Your task to perform on an android device: Go to sound settings Image 0: 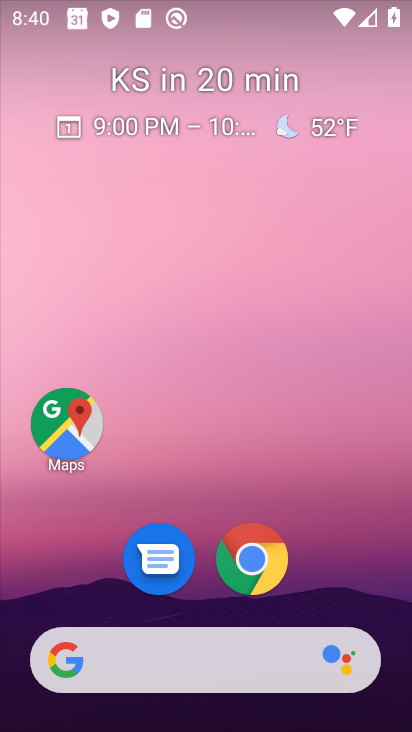
Step 0: drag from (299, 516) to (277, 46)
Your task to perform on an android device: Go to sound settings Image 1: 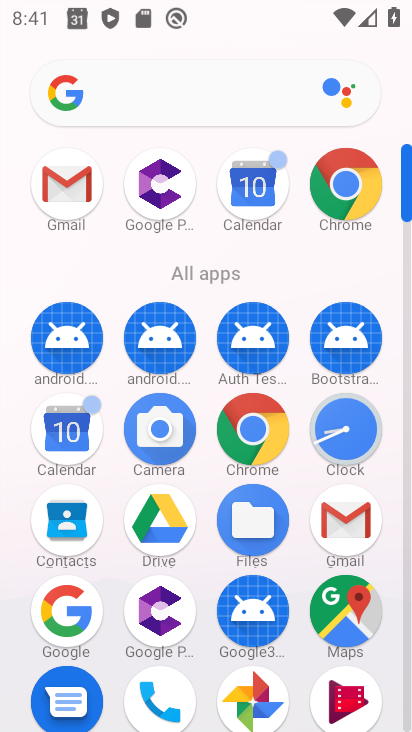
Step 1: drag from (17, 499) to (12, 187)
Your task to perform on an android device: Go to sound settings Image 2: 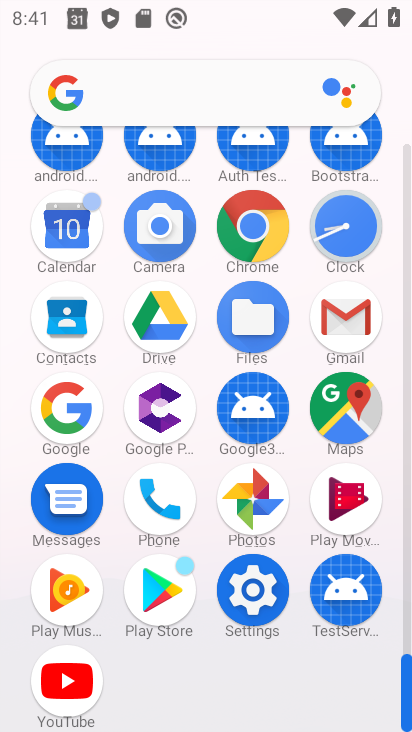
Step 2: click (252, 582)
Your task to perform on an android device: Go to sound settings Image 3: 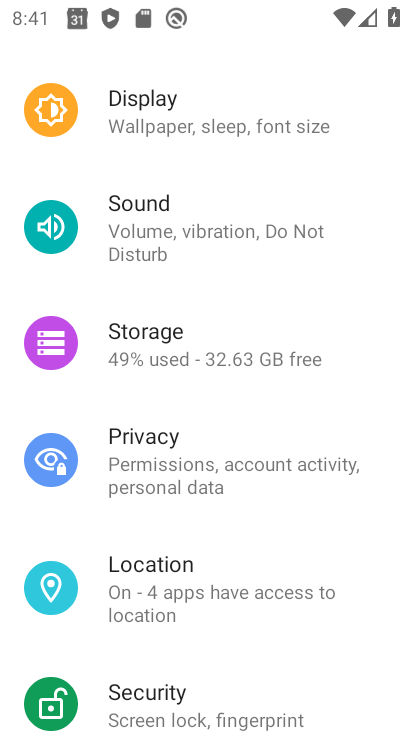
Step 3: drag from (260, 512) to (282, 112)
Your task to perform on an android device: Go to sound settings Image 4: 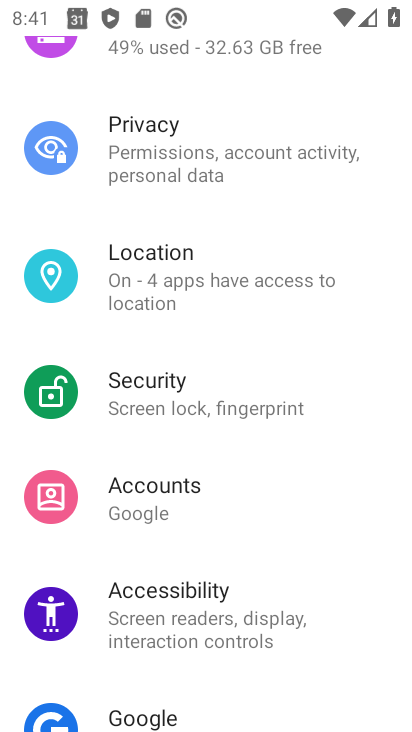
Step 4: drag from (242, 535) to (242, 103)
Your task to perform on an android device: Go to sound settings Image 5: 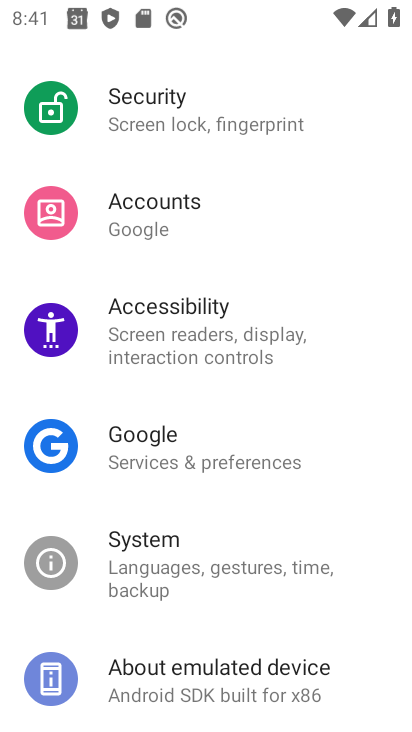
Step 5: drag from (240, 109) to (226, 565)
Your task to perform on an android device: Go to sound settings Image 6: 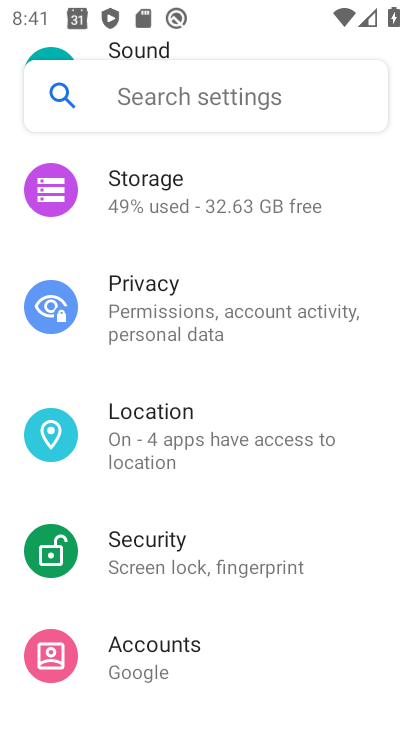
Step 6: drag from (258, 214) to (225, 634)
Your task to perform on an android device: Go to sound settings Image 7: 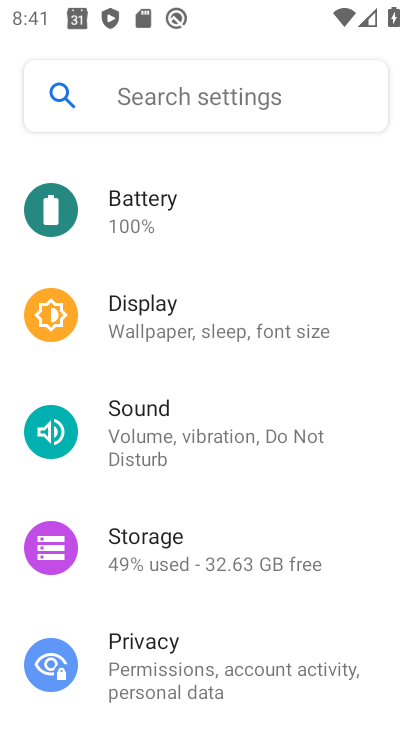
Step 7: drag from (226, 271) to (225, 497)
Your task to perform on an android device: Go to sound settings Image 8: 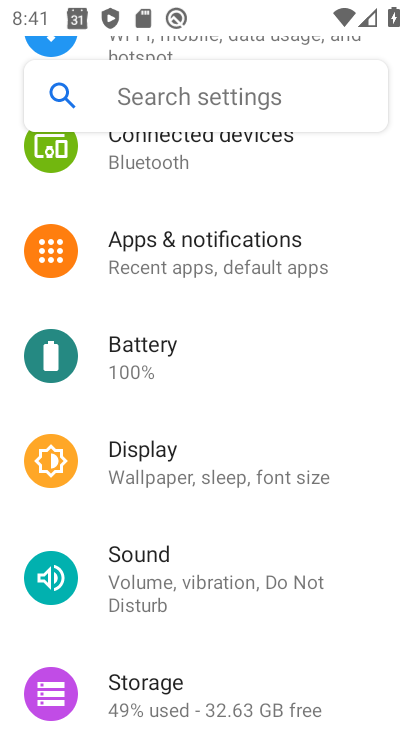
Step 8: drag from (262, 211) to (267, 589)
Your task to perform on an android device: Go to sound settings Image 9: 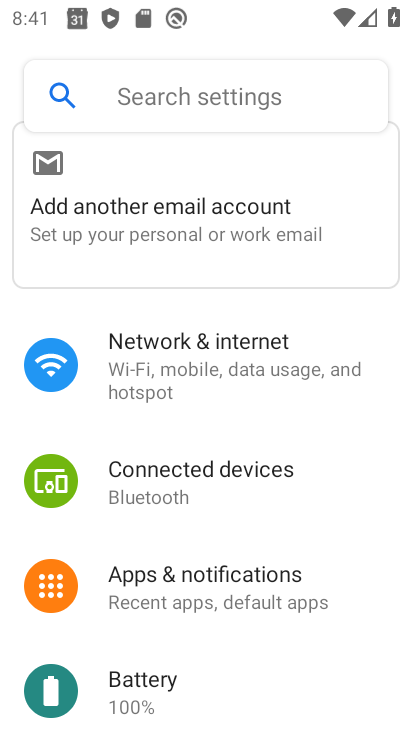
Step 9: drag from (260, 543) to (265, 203)
Your task to perform on an android device: Go to sound settings Image 10: 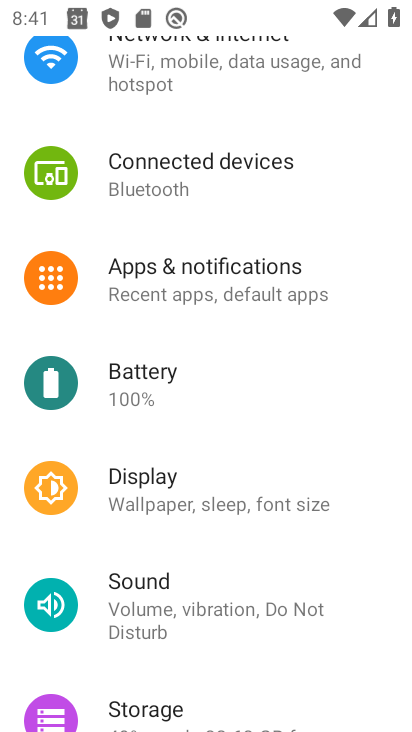
Step 10: drag from (215, 556) to (246, 123)
Your task to perform on an android device: Go to sound settings Image 11: 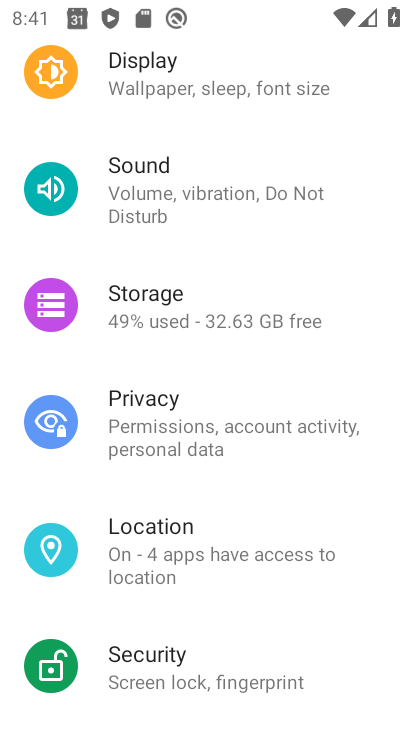
Step 11: drag from (229, 575) to (237, 117)
Your task to perform on an android device: Go to sound settings Image 12: 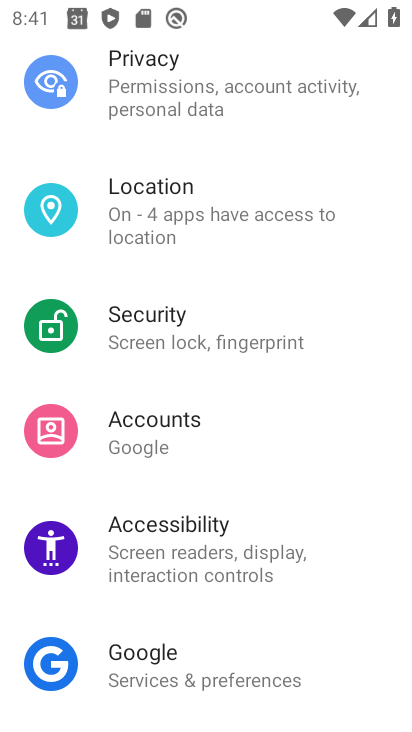
Step 12: drag from (241, 482) to (269, 95)
Your task to perform on an android device: Go to sound settings Image 13: 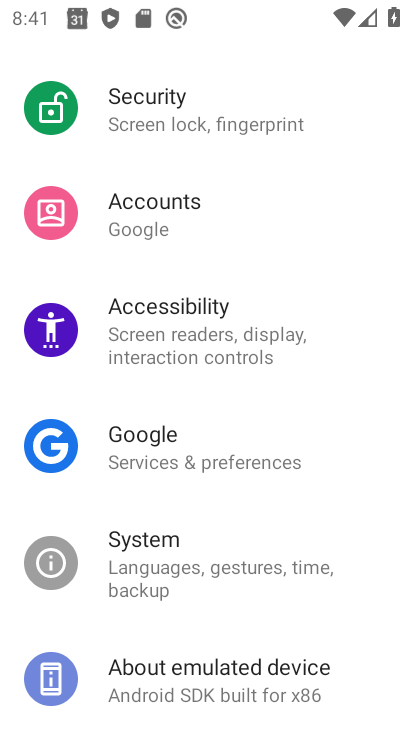
Step 13: drag from (233, 609) to (257, 224)
Your task to perform on an android device: Go to sound settings Image 14: 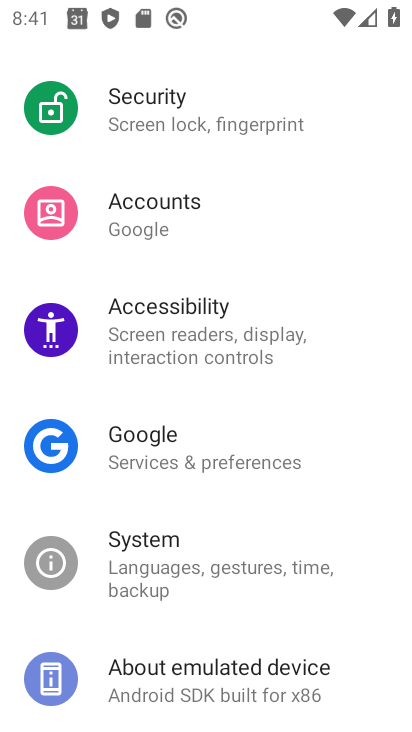
Step 14: drag from (257, 250) to (246, 632)
Your task to perform on an android device: Go to sound settings Image 15: 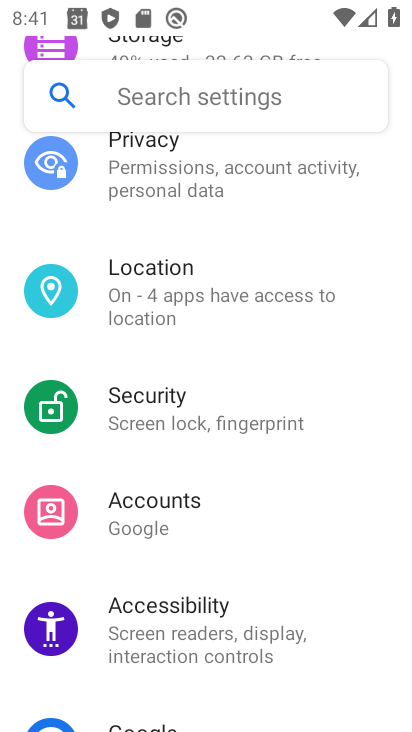
Step 15: drag from (212, 249) to (226, 661)
Your task to perform on an android device: Go to sound settings Image 16: 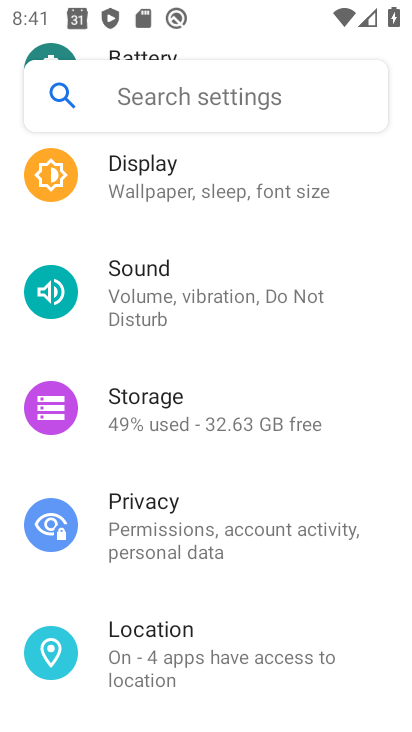
Step 16: click (194, 290)
Your task to perform on an android device: Go to sound settings Image 17: 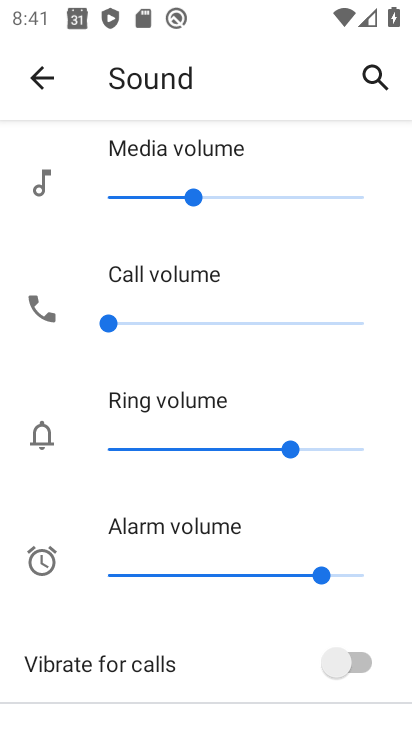
Step 17: task complete